Your task to perform on an android device: turn on translation in the chrome app Image 0: 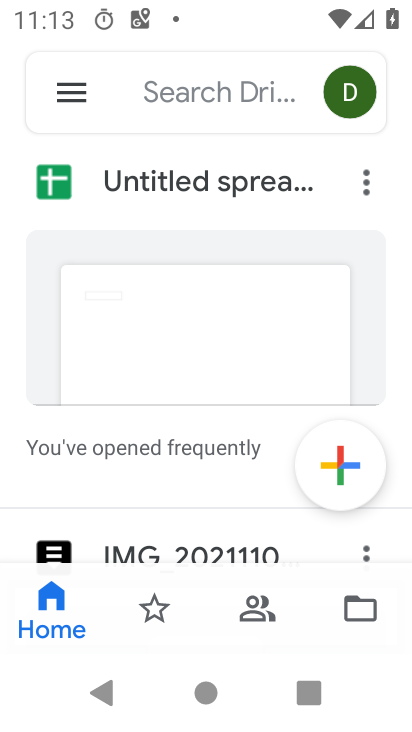
Step 0: press home button
Your task to perform on an android device: turn on translation in the chrome app Image 1: 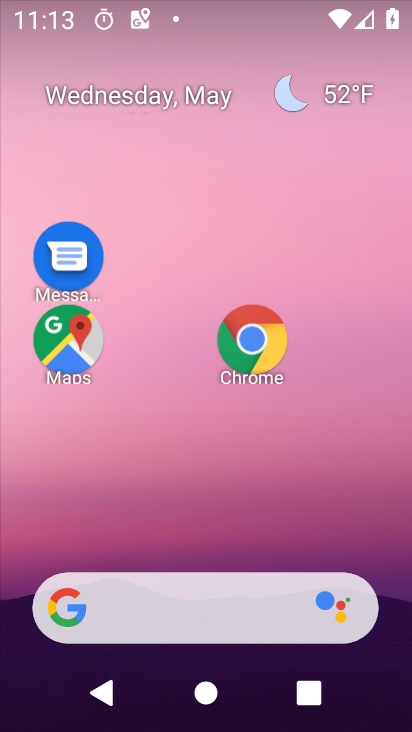
Step 1: click (255, 334)
Your task to perform on an android device: turn on translation in the chrome app Image 2: 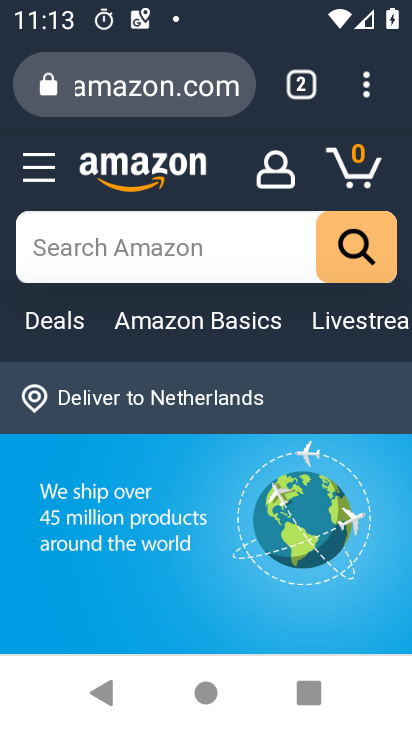
Step 2: click (363, 91)
Your task to perform on an android device: turn on translation in the chrome app Image 3: 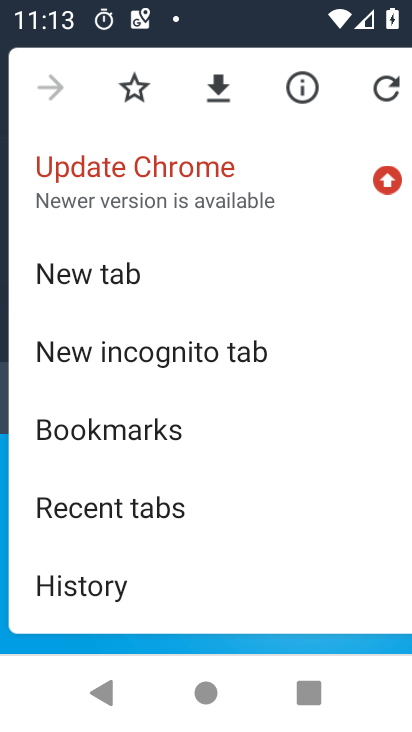
Step 3: drag from (115, 589) to (151, 184)
Your task to perform on an android device: turn on translation in the chrome app Image 4: 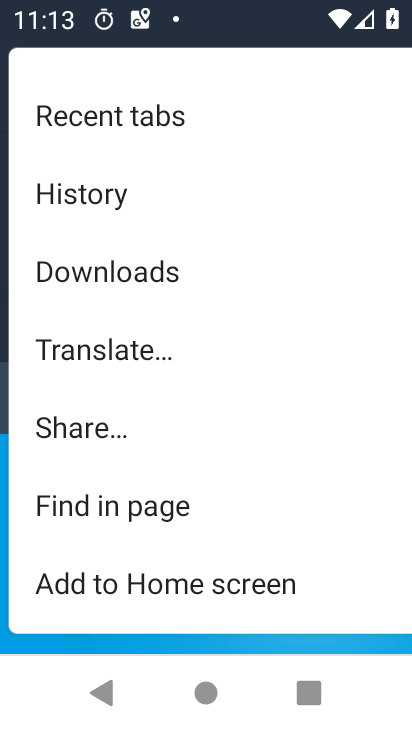
Step 4: drag from (153, 552) to (138, 184)
Your task to perform on an android device: turn on translation in the chrome app Image 5: 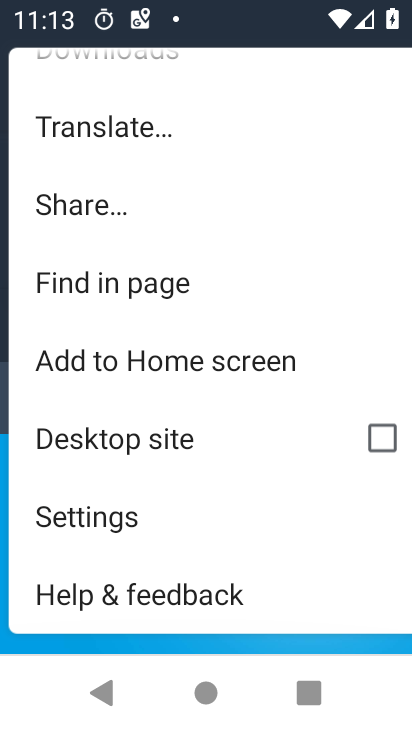
Step 5: click (132, 528)
Your task to perform on an android device: turn on translation in the chrome app Image 6: 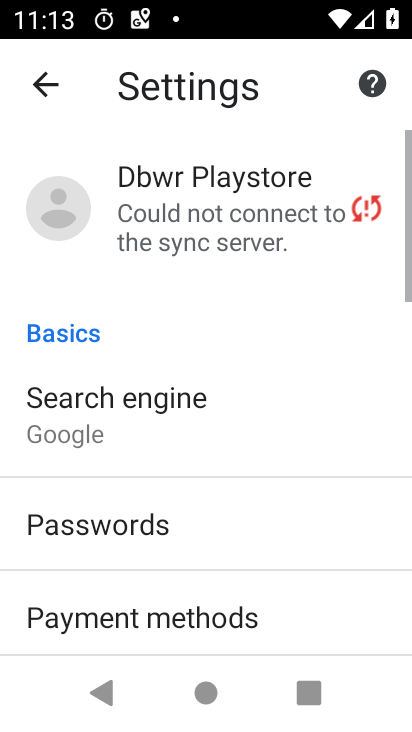
Step 6: drag from (262, 557) to (229, 82)
Your task to perform on an android device: turn on translation in the chrome app Image 7: 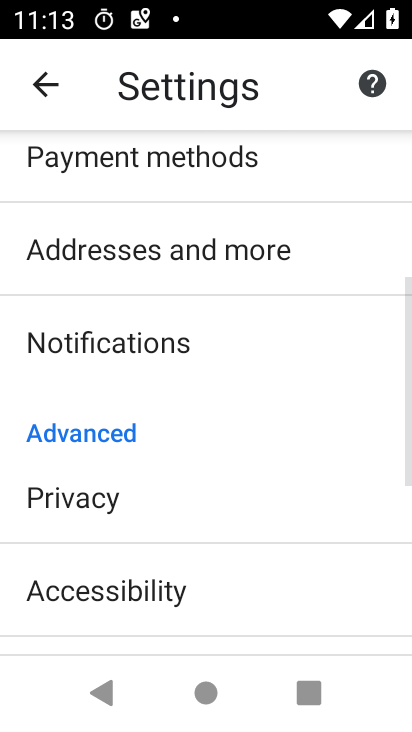
Step 7: drag from (211, 513) to (177, 106)
Your task to perform on an android device: turn on translation in the chrome app Image 8: 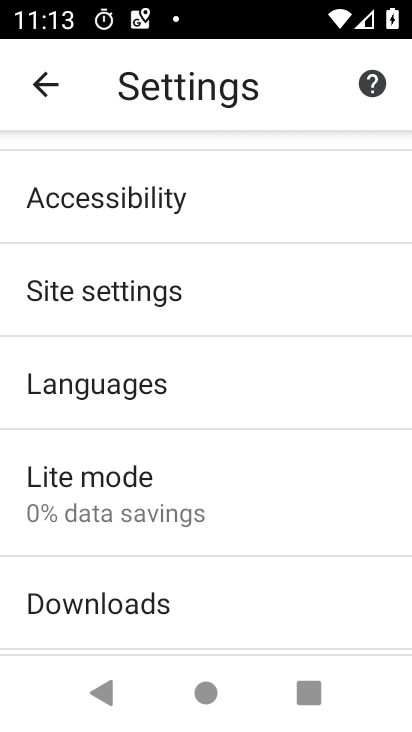
Step 8: click (94, 380)
Your task to perform on an android device: turn on translation in the chrome app Image 9: 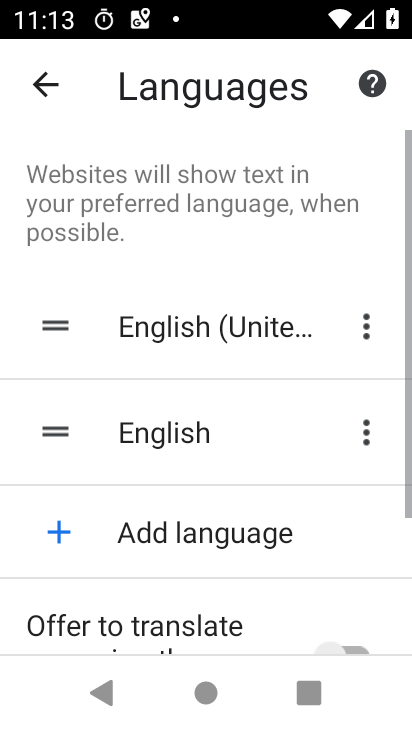
Step 9: drag from (267, 593) to (239, 233)
Your task to perform on an android device: turn on translation in the chrome app Image 10: 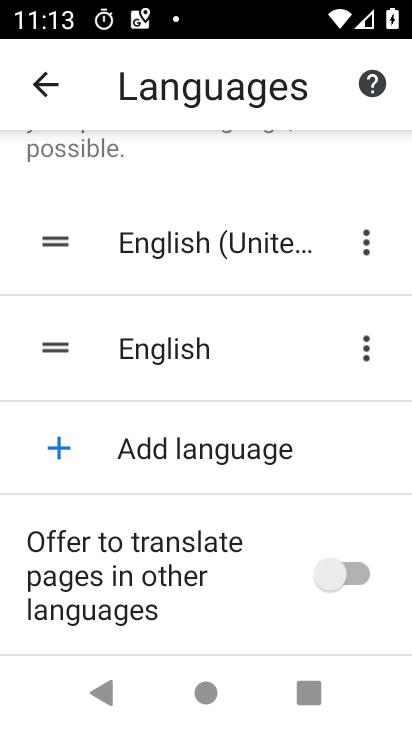
Step 10: click (330, 598)
Your task to perform on an android device: turn on translation in the chrome app Image 11: 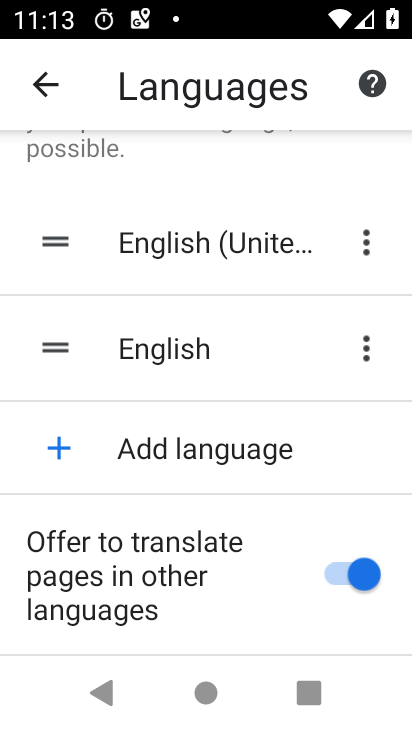
Step 11: task complete